Your task to perform on an android device: Open Yahoo.com Image 0: 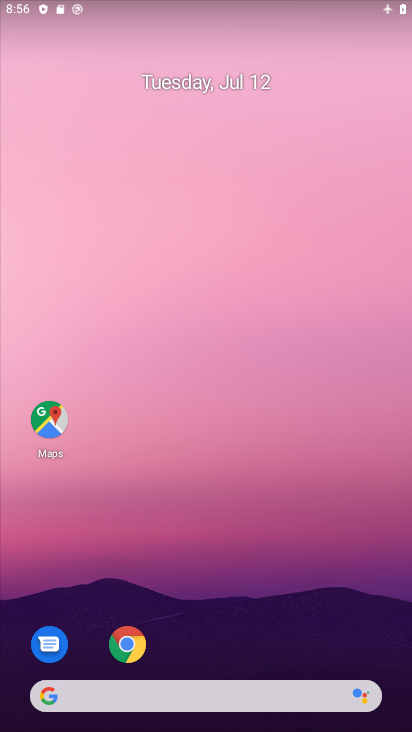
Step 0: click (124, 641)
Your task to perform on an android device: Open Yahoo.com Image 1: 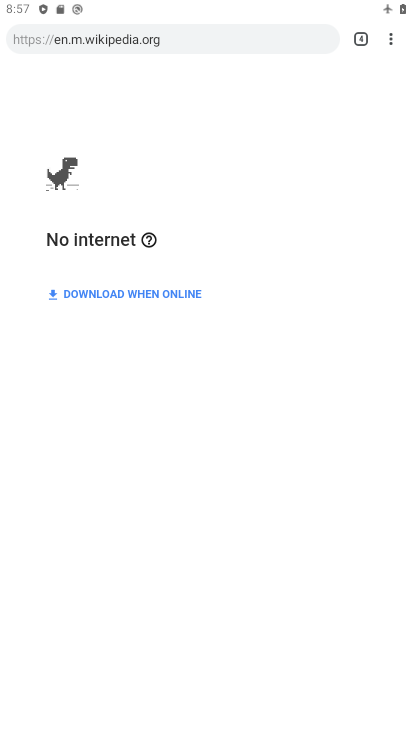
Step 1: click (361, 40)
Your task to perform on an android device: Open Yahoo.com Image 2: 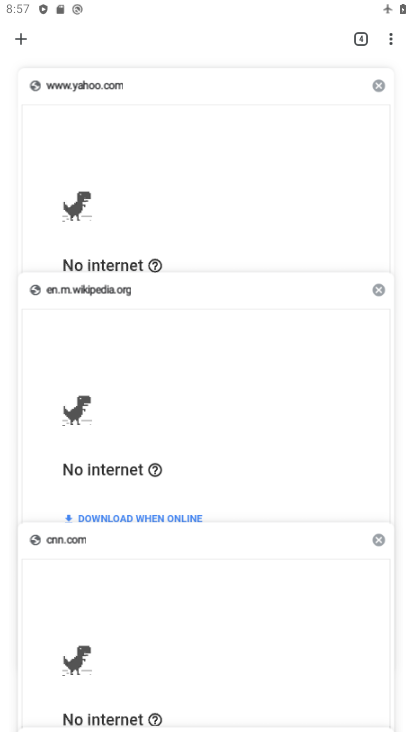
Step 2: click (10, 40)
Your task to perform on an android device: Open Yahoo.com Image 3: 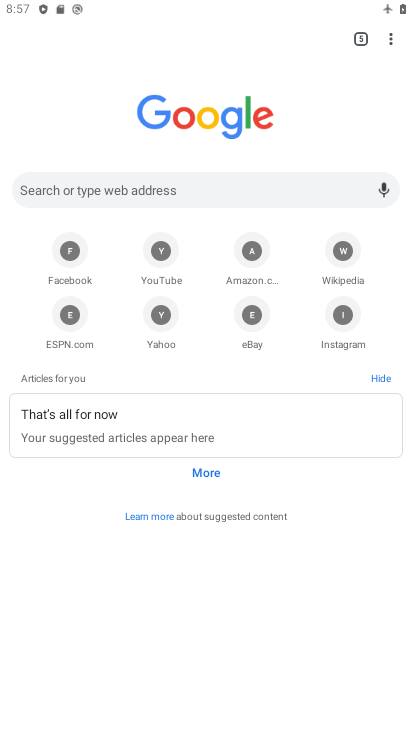
Step 3: click (145, 306)
Your task to perform on an android device: Open Yahoo.com Image 4: 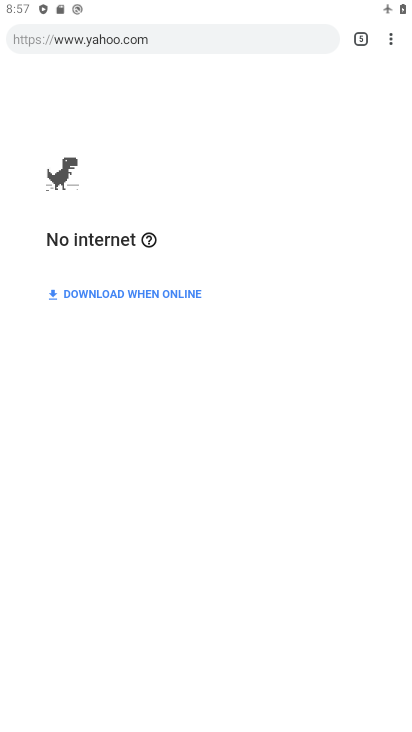
Step 4: task complete